Your task to perform on an android device: turn on data saver in the chrome app Image 0: 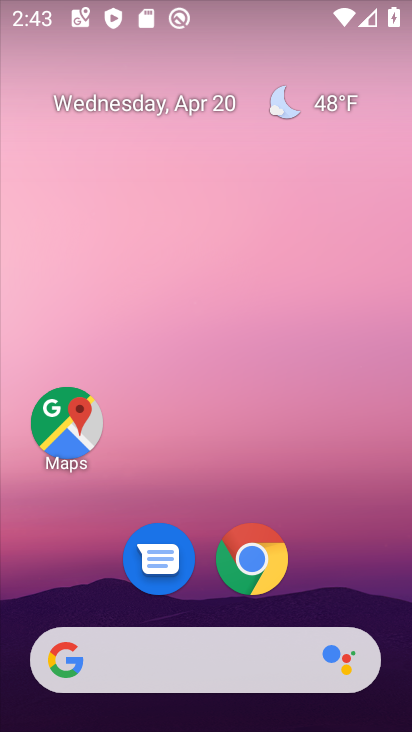
Step 0: drag from (214, 692) to (250, 154)
Your task to perform on an android device: turn on data saver in the chrome app Image 1: 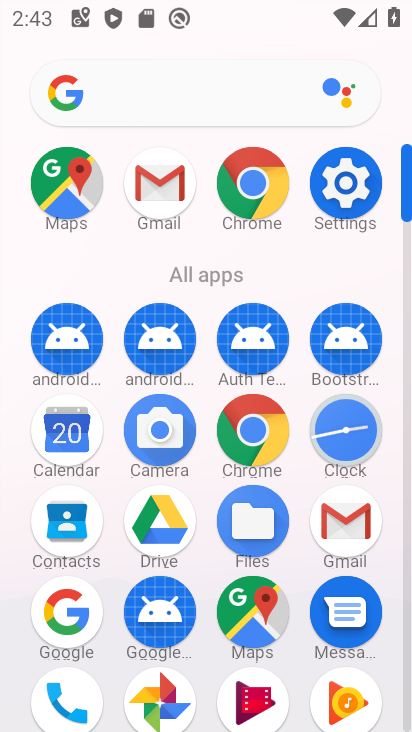
Step 1: click (259, 176)
Your task to perform on an android device: turn on data saver in the chrome app Image 2: 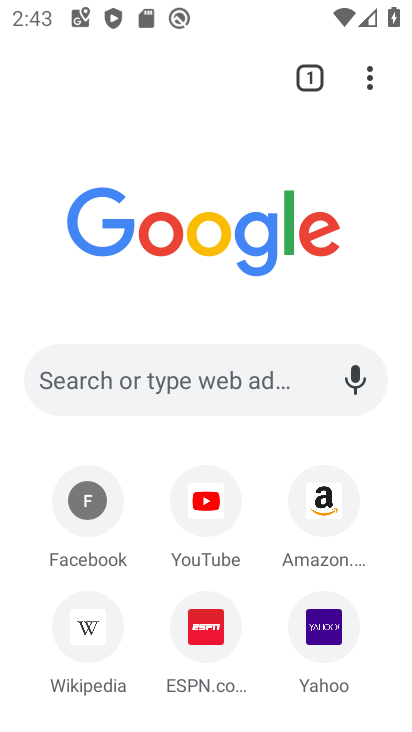
Step 2: click (376, 65)
Your task to perform on an android device: turn on data saver in the chrome app Image 3: 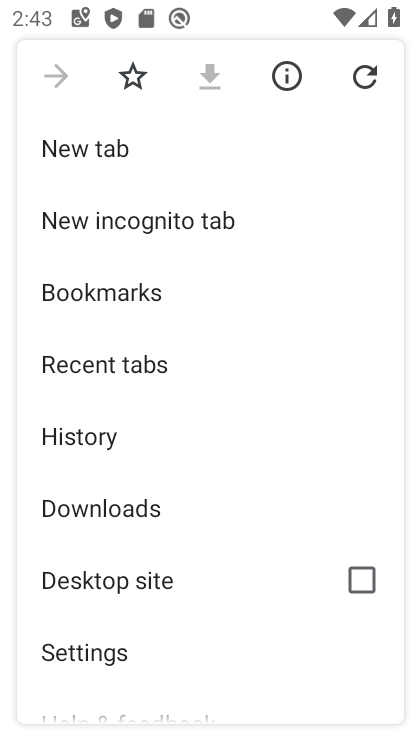
Step 3: click (77, 642)
Your task to perform on an android device: turn on data saver in the chrome app Image 4: 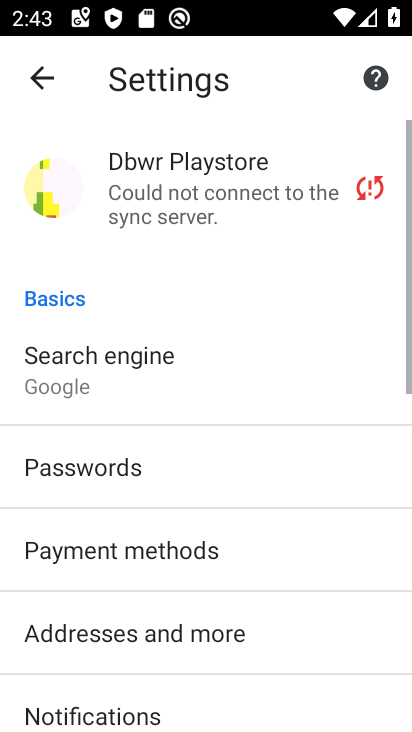
Step 4: drag from (125, 645) to (161, 195)
Your task to perform on an android device: turn on data saver in the chrome app Image 5: 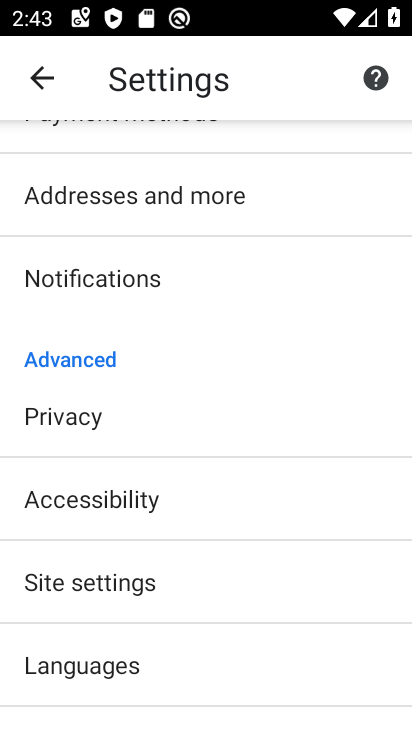
Step 5: drag from (107, 630) to (162, 386)
Your task to perform on an android device: turn on data saver in the chrome app Image 6: 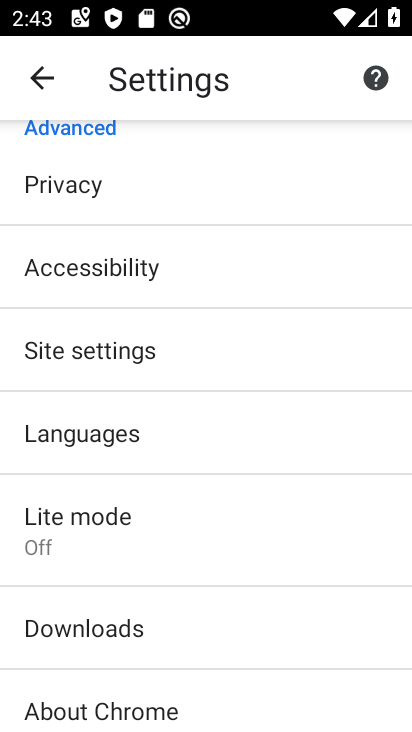
Step 6: click (90, 514)
Your task to perform on an android device: turn on data saver in the chrome app Image 7: 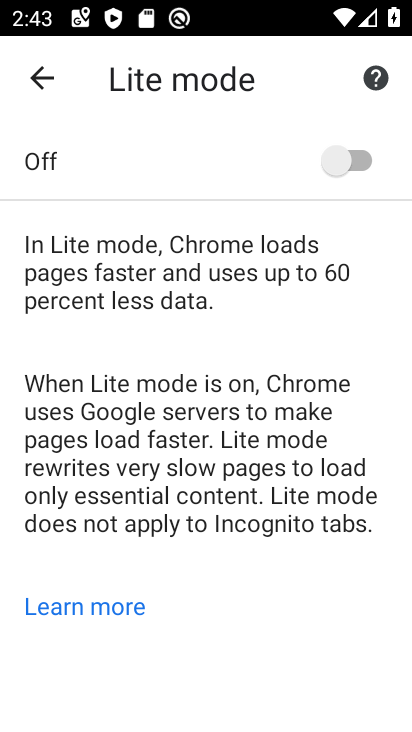
Step 7: click (355, 159)
Your task to perform on an android device: turn on data saver in the chrome app Image 8: 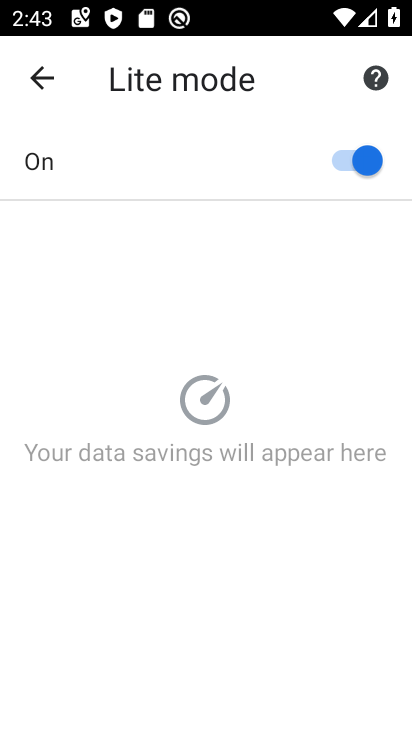
Step 8: task complete